Your task to perform on an android device: open the mobile data screen to see how much data has been used Image 0: 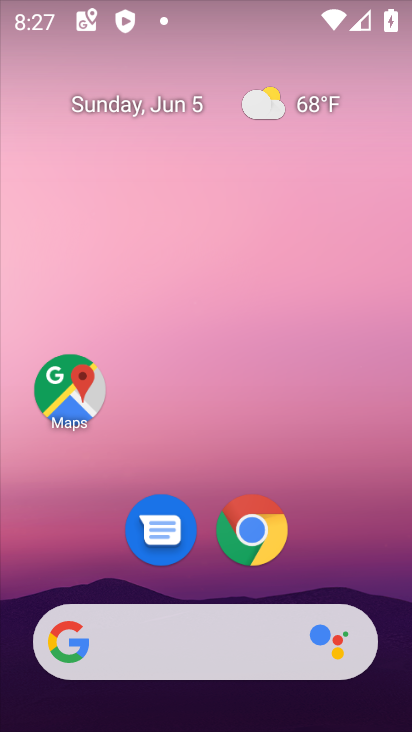
Step 0: drag from (396, 637) to (328, 63)
Your task to perform on an android device: open the mobile data screen to see how much data has been used Image 1: 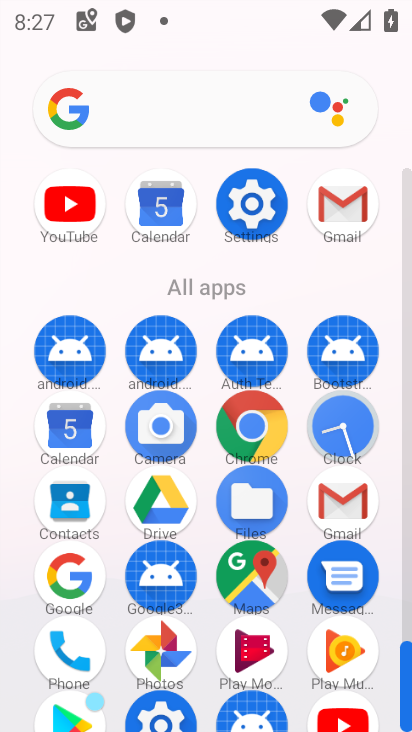
Step 1: drag from (405, 625) to (410, 516)
Your task to perform on an android device: open the mobile data screen to see how much data has been used Image 2: 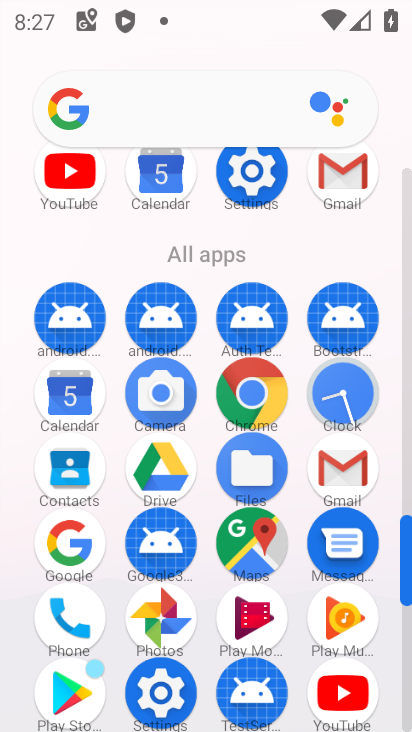
Step 2: click (160, 691)
Your task to perform on an android device: open the mobile data screen to see how much data has been used Image 3: 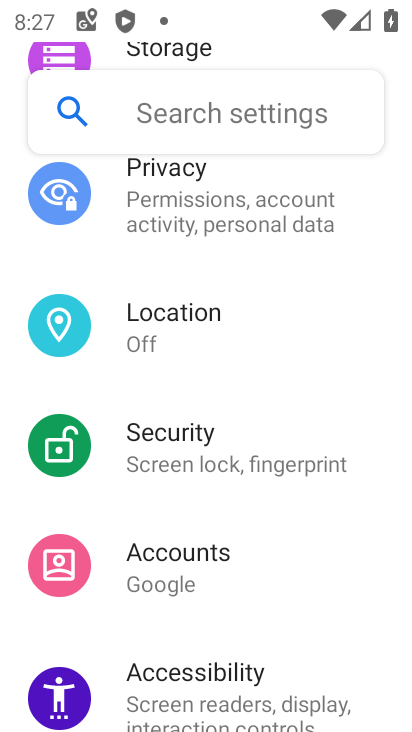
Step 3: drag from (368, 242) to (349, 533)
Your task to perform on an android device: open the mobile data screen to see how much data has been used Image 4: 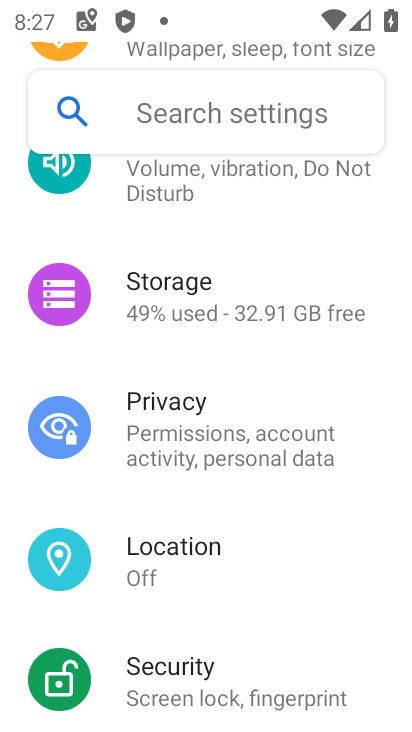
Step 4: drag from (348, 204) to (322, 630)
Your task to perform on an android device: open the mobile data screen to see how much data has been used Image 5: 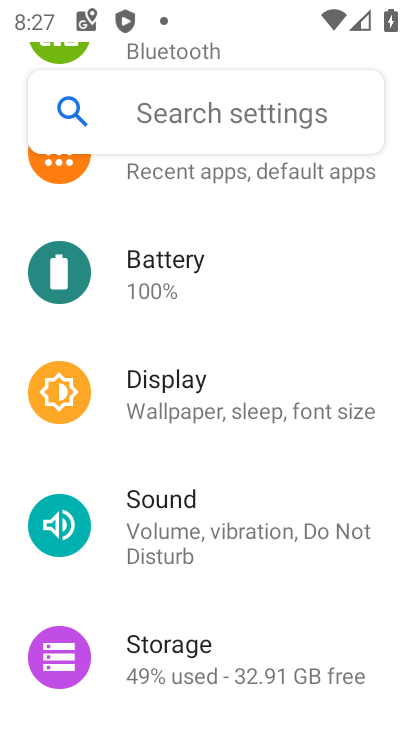
Step 5: drag from (374, 600) to (368, 649)
Your task to perform on an android device: open the mobile data screen to see how much data has been used Image 6: 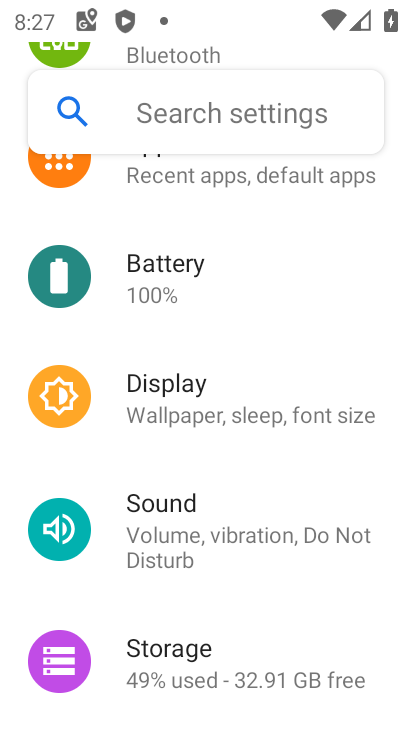
Step 6: drag from (346, 236) to (366, 544)
Your task to perform on an android device: open the mobile data screen to see how much data has been used Image 7: 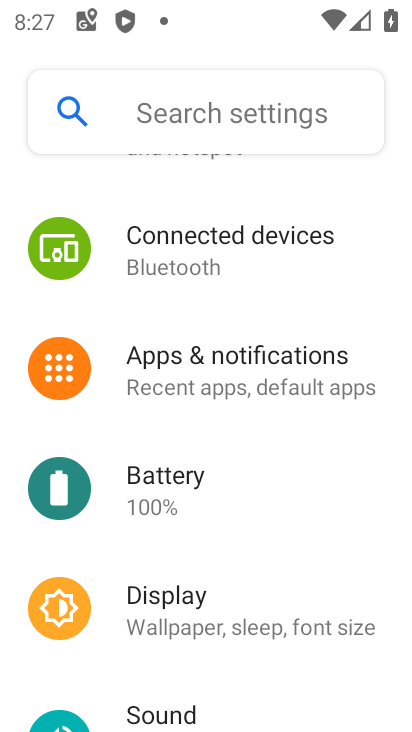
Step 7: drag from (354, 276) to (343, 604)
Your task to perform on an android device: open the mobile data screen to see how much data has been used Image 8: 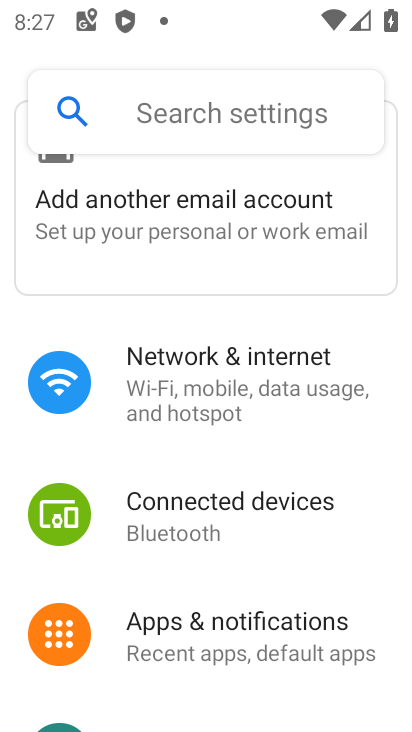
Step 8: click (163, 382)
Your task to perform on an android device: open the mobile data screen to see how much data has been used Image 9: 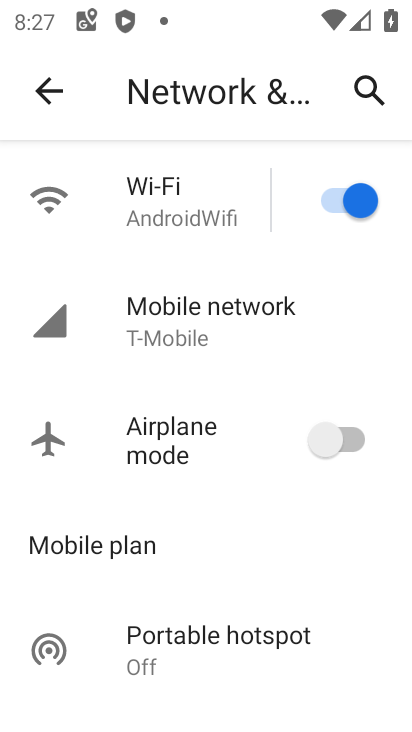
Step 9: click (193, 317)
Your task to perform on an android device: open the mobile data screen to see how much data has been used Image 10: 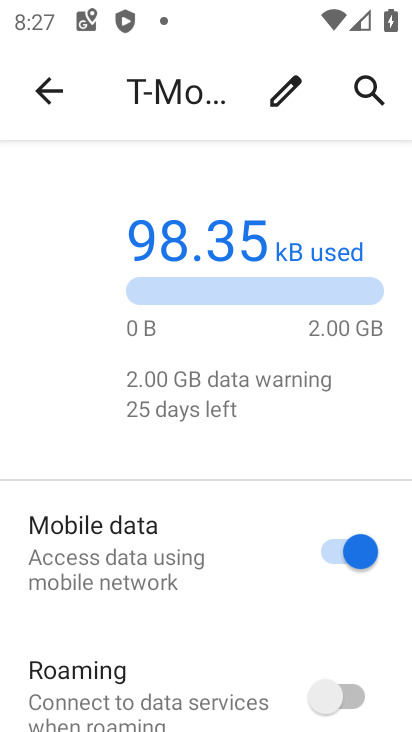
Step 10: task complete